Your task to perform on an android device: change the upload size in google photos Image 0: 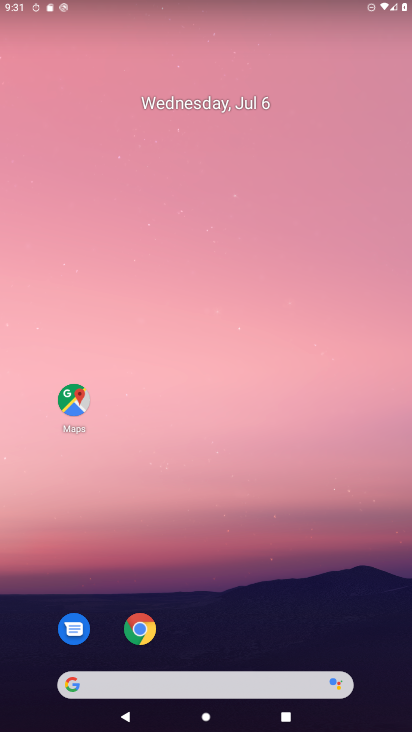
Step 0: click (225, 712)
Your task to perform on an android device: change the upload size in google photos Image 1: 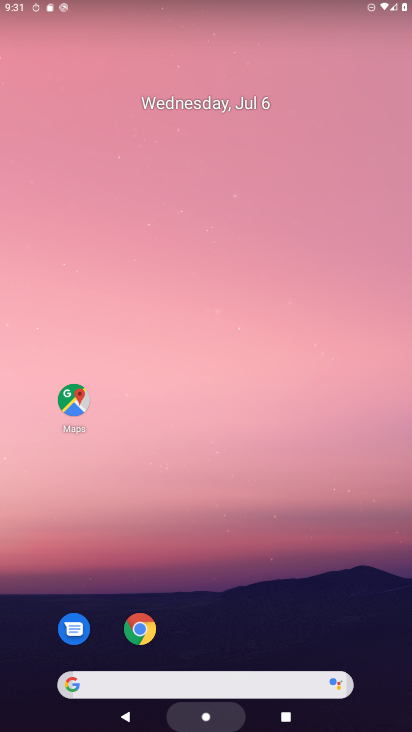
Step 1: drag from (226, 280) to (226, 127)
Your task to perform on an android device: change the upload size in google photos Image 2: 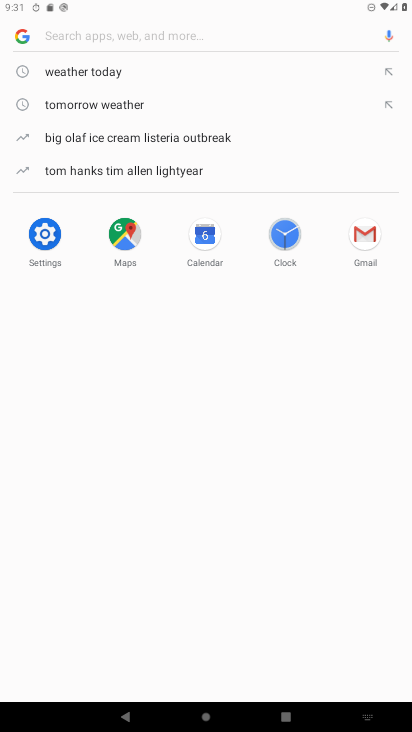
Step 2: press home button
Your task to perform on an android device: change the upload size in google photos Image 3: 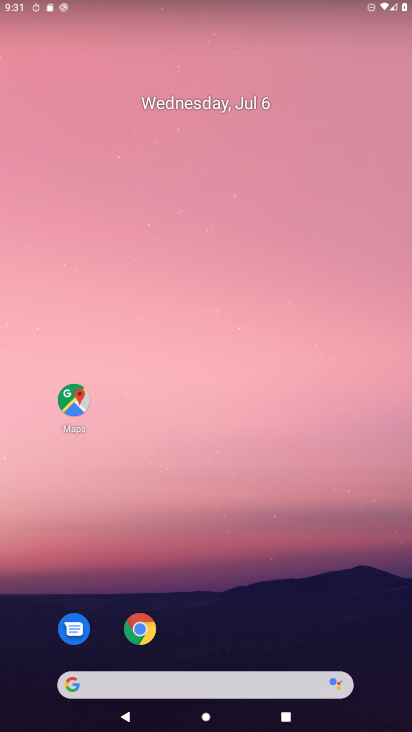
Step 3: drag from (224, 714) to (209, 115)
Your task to perform on an android device: change the upload size in google photos Image 4: 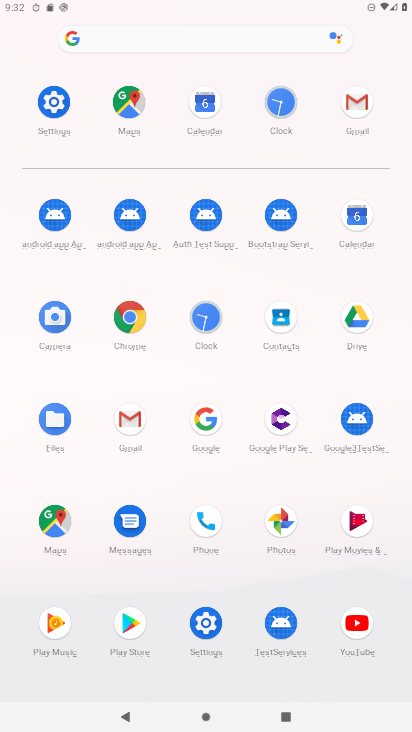
Step 4: click (282, 522)
Your task to perform on an android device: change the upload size in google photos Image 5: 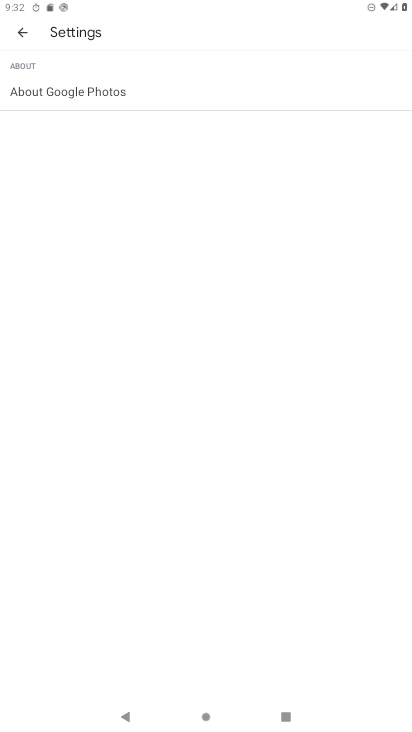
Step 5: click (19, 29)
Your task to perform on an android device: change the upload size in google photos Image 6: 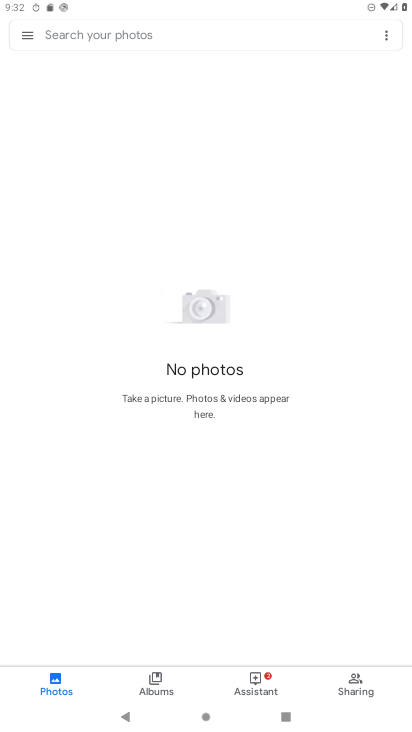
Step 6: click (27, 33)
Your task to perform on an android device: change the upload size in google photos Image 7: 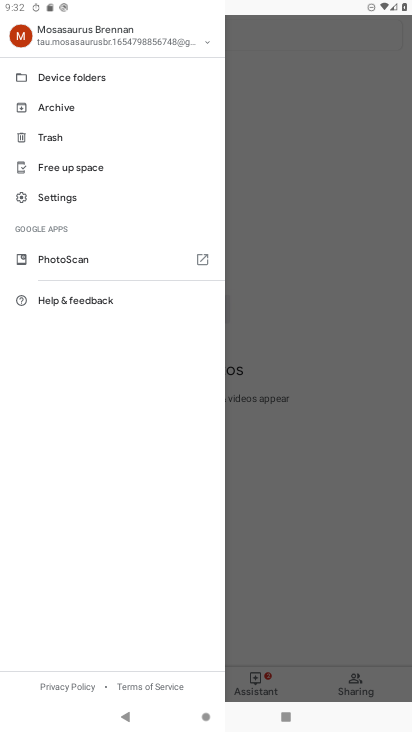
Step 7: click (54, 195)
Your task to perform on an android device: change the upload size in google photos Image 8: 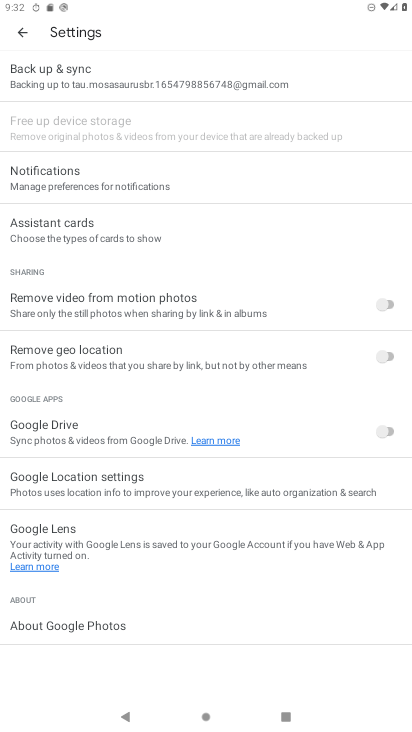
Step 8: click (44, 68)
Your task to perform on an android device: change the upload size in google photos Image 9: 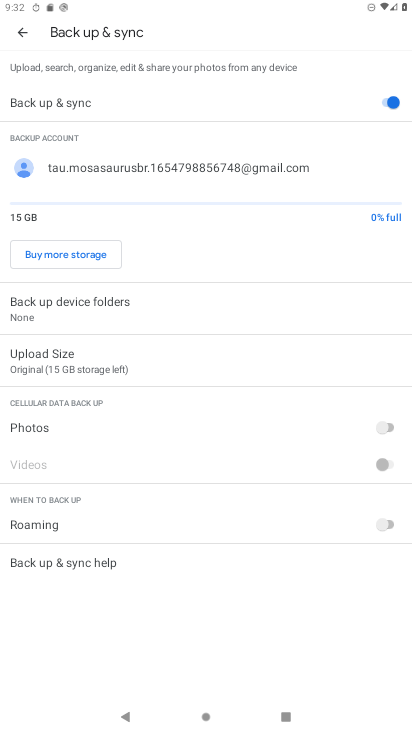
Step 9: click (62, 359)
Your task to perform on an android device: change the upload size in google photos Image 10: 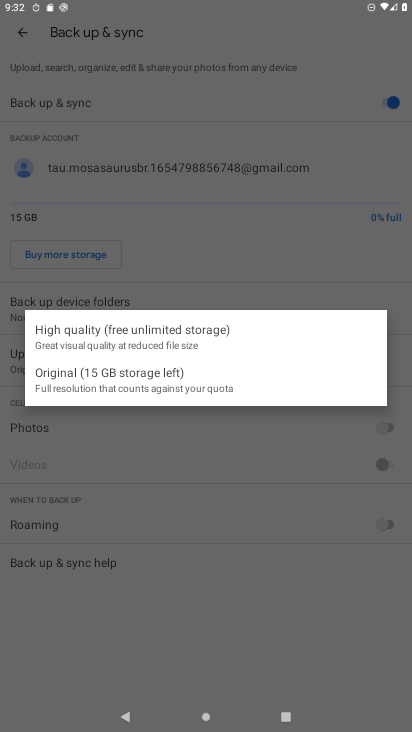
Step 10: click (61, 373)
Your task to perform on an android device: change the upload size in google photos Image 11: 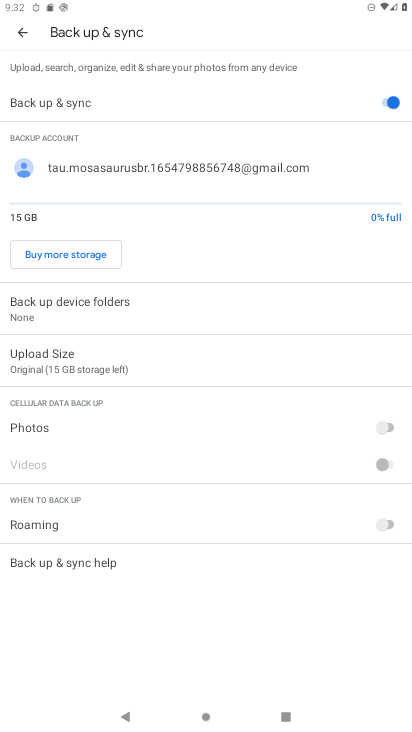
Step 11: task complete